Your task to perform on an android device: clear history in the chrome app Image 0: 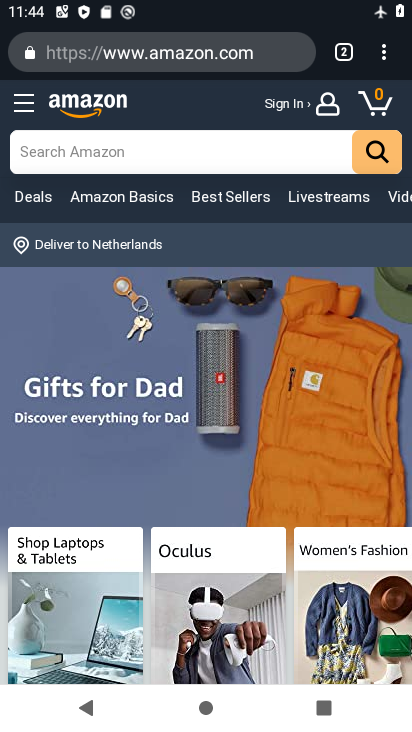
Step 0: press home button
Your task to perform on an android device: clear history in the chrome app Image 1: 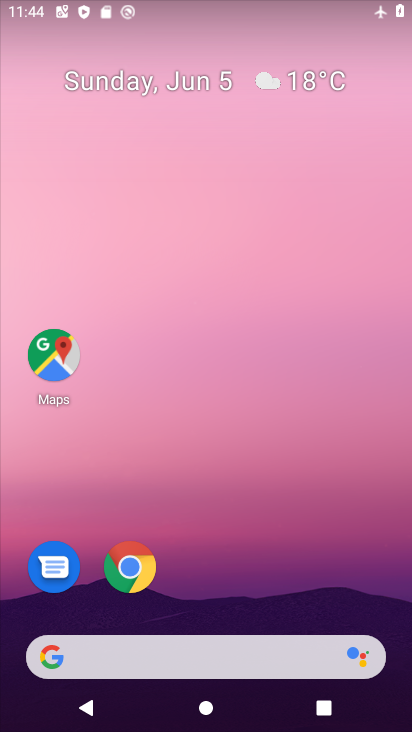
Step 1: click (139, 567)
Your task to perform on an android device: clear history in the chrome app Image 2: 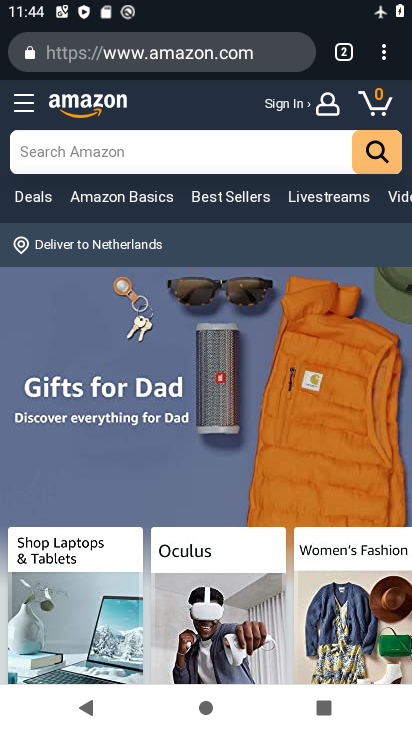
Step 2: click (383, 59)
Your task to perform on an android device: clear history in the chrome app Image 3: 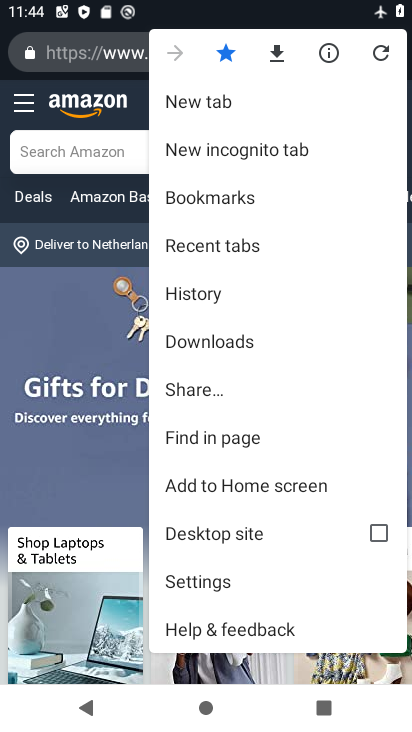
Step 3: click (219, 297)
Your task to perform on an android device: clear history in the chrome app Image 4: 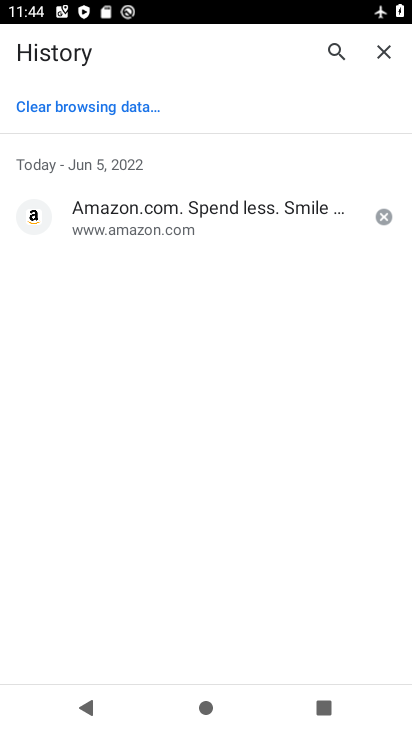
Step 4: click (99, 105)
Your task to perform on an android device: clear history in the chrome app Image 5: 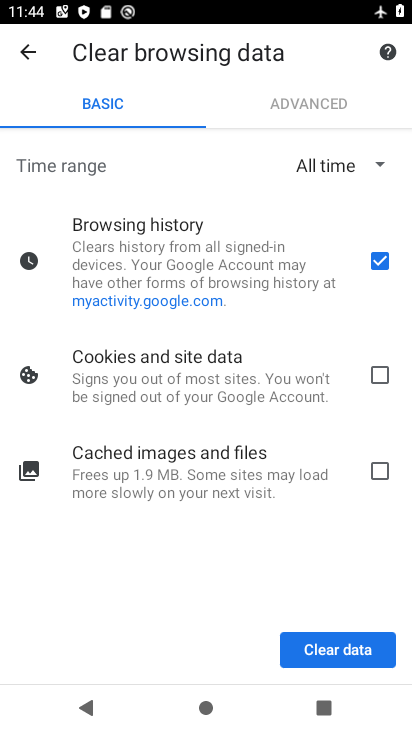
Step 5: click (358, 639)
Your task to perform on an android device: clear history in the chrome app Image 6: 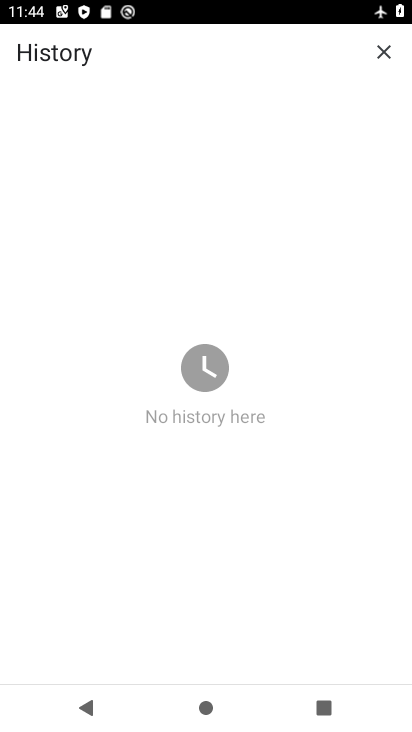
Step 6: task complete